Your task to perform on an android device: What is the recent news? Image 0: 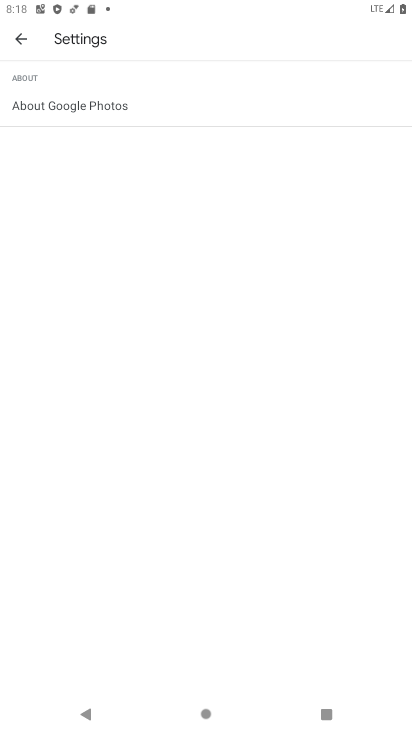
Step 0: press home button
Your task to perform on an android device: What is the recent news? Image 1: 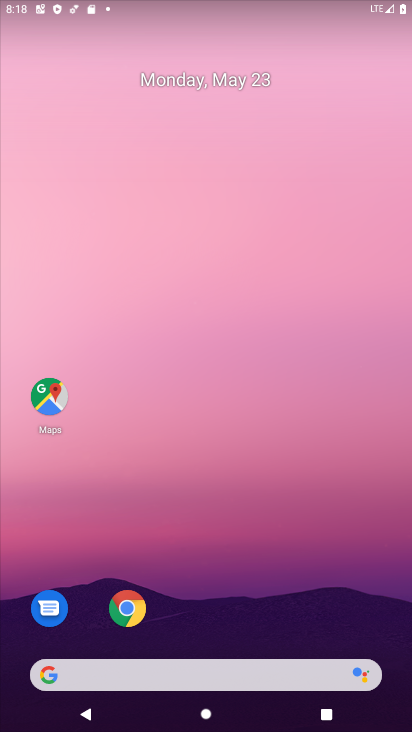
Step 1: task complete